Your task to perform on an android device: remove spam from my inbox in the gmail app Image 0: 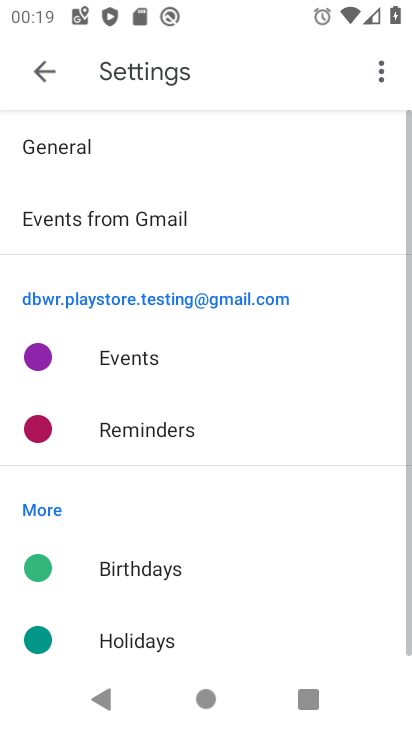
Step 0: drag from (287, 563) to (259, 136)
Your task to perform on an android device: remove spam from my inbox in the gmail app Image 1: 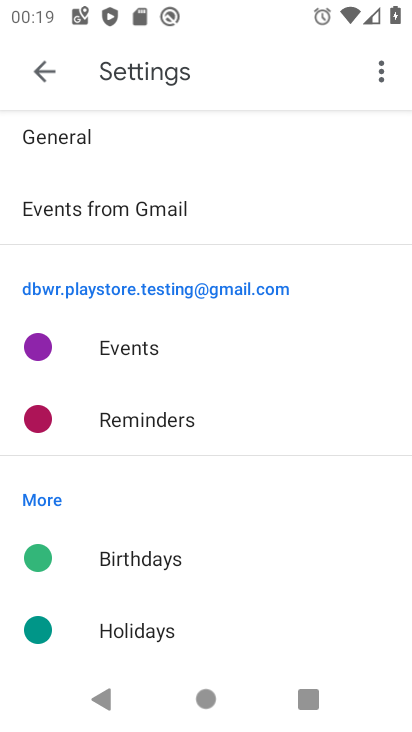
Step 1: press home button
Your task to perform on an android device: remove spam from my inbox in the gmail app Image 2: 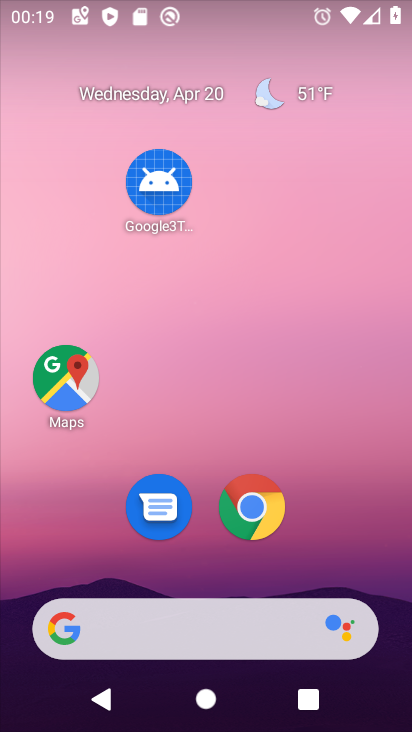
Step 2: drag from (203, 565) to (102, 4)
Your task to perform on an android device: remove spam from my inbox in the gmail app Image 3: 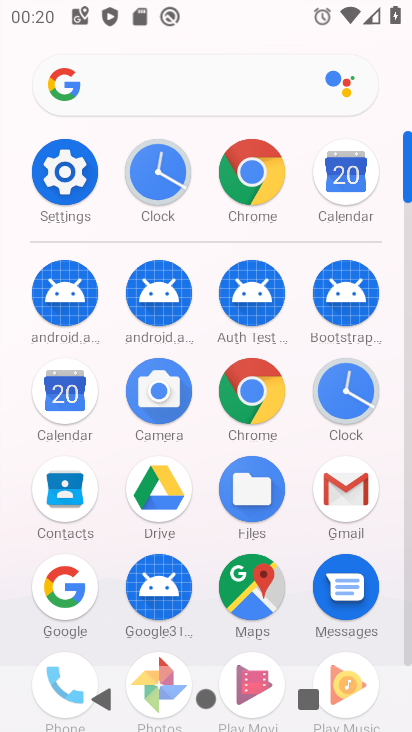
Step 3: click (332, 491)
Your task to perform on an android device: remove spam from my inbox in the gmail app Image 4: 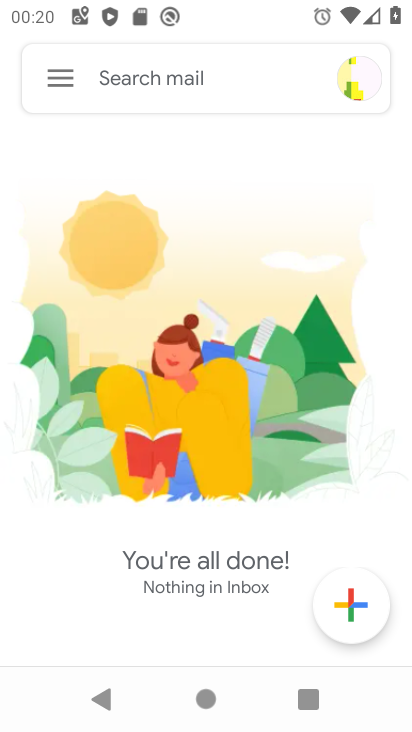
Step 4: click (55, 76)
Your task to perform on an android device: remove spam from my inbox in the gmail app Image 5: 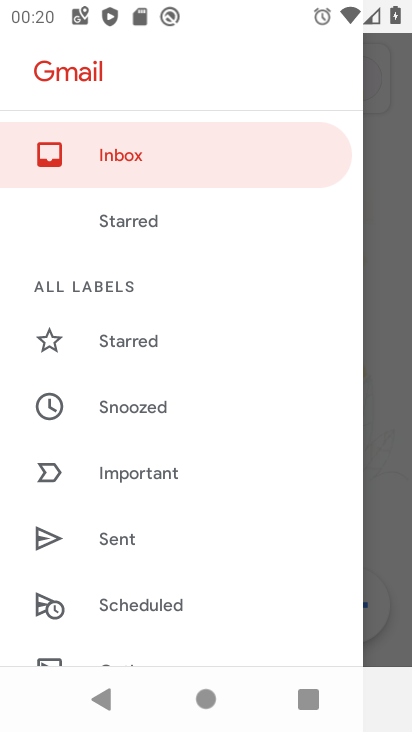
Step 5: drag from (168, 538) to (197, 198)
Your task to perform on an android device: remove spam from my inbox in the gmail app Image 6: 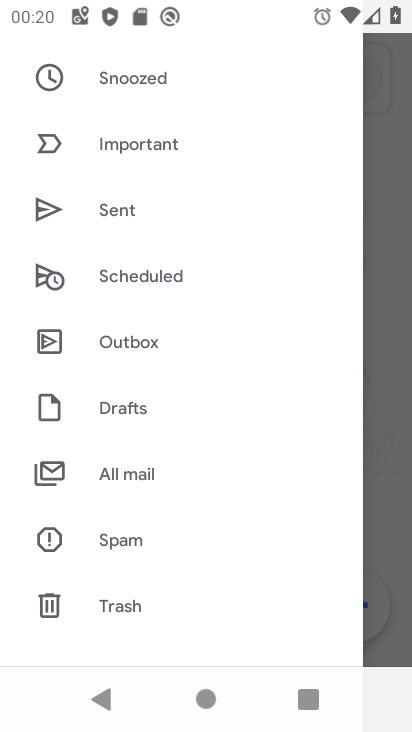
Step 6: click (127, 533)
Your task to perform on an android device: remove spam from my inbox in the gmail app Image 7: 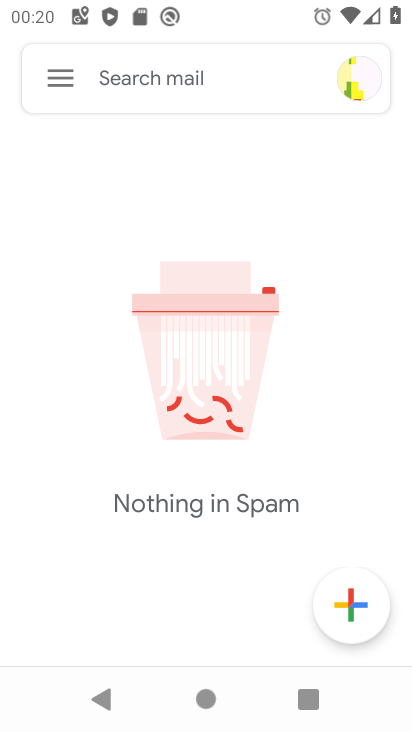
Step 7: task complete